Your task to perform on an android device: Open wifi settings Image 0: 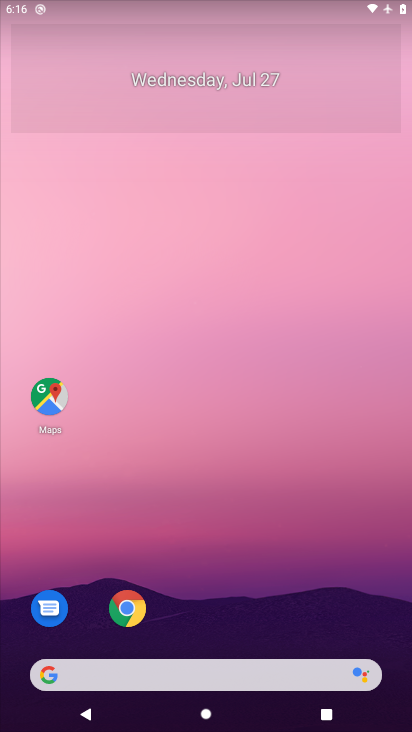
Step 0: press home button
Your task to perform on an android device: Open wifi settings Image 1: 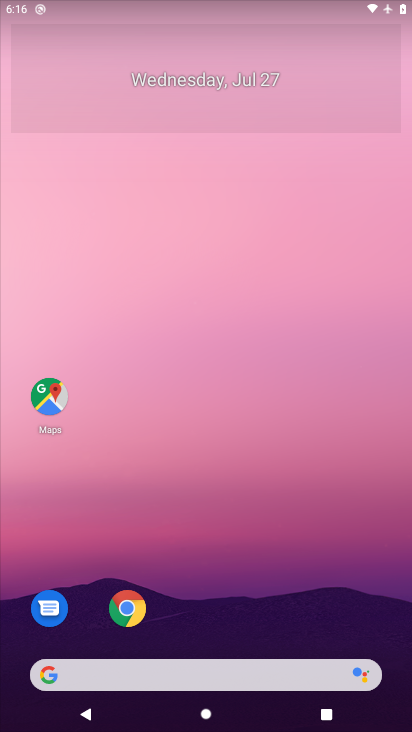
Step 1: drag from (248, 613) to (166, 0)
Your task to perform on an android device: Open wifi settings Image 2: 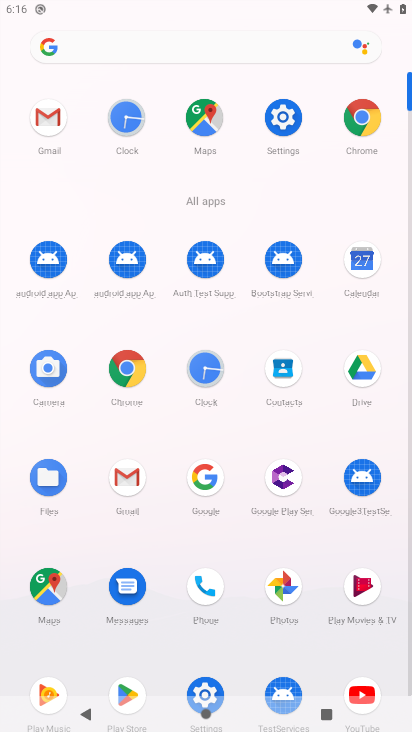
Step 2: click (286, 124)
Your task to perform on an android device: Open wifi settings Image 3: 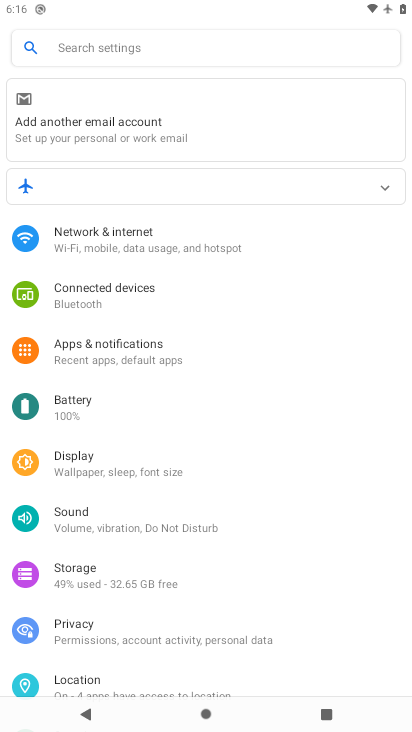
Step 3: click (83, 242)
Your task to perform on an android device: Open wifi settings Image 4: 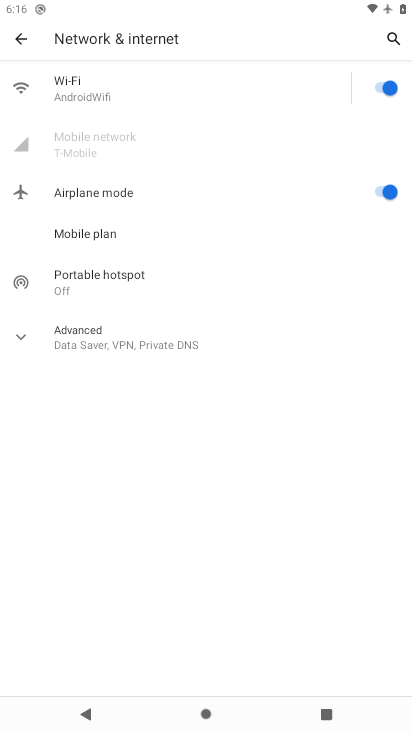
Step 4: click (74, 90)
Your task to perform on an android device: Open wifi settings Image 5: 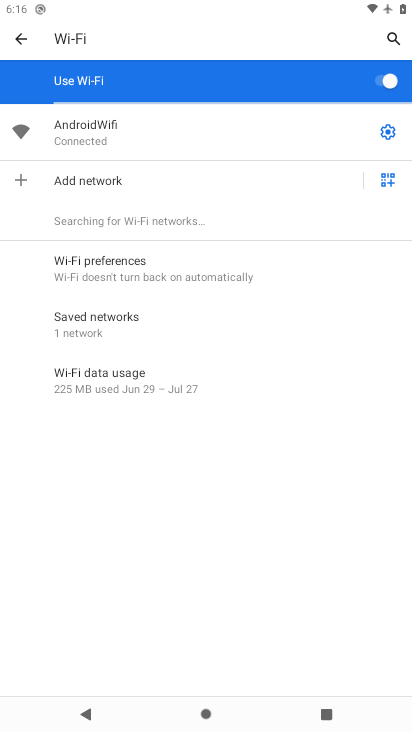
Step 5: task complete